Your task to perform on an android device: Open the phone app and click the voicemail tab. Image 0: 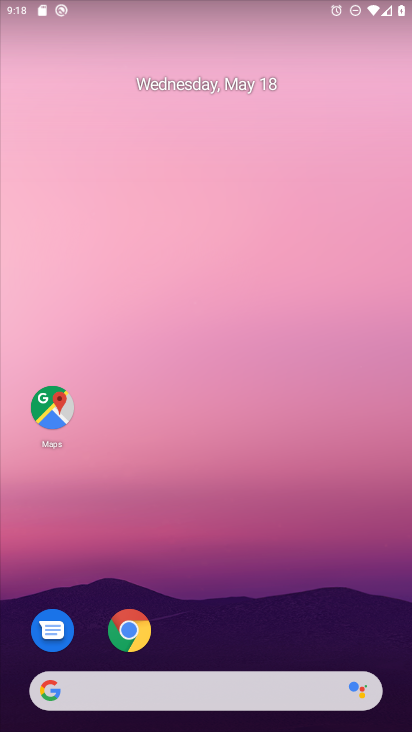
Step 0: drag from (187, 661) to (342, 23)
Your task to perform on an android device: Open the phone app and click the voicemail tab. Image 1: 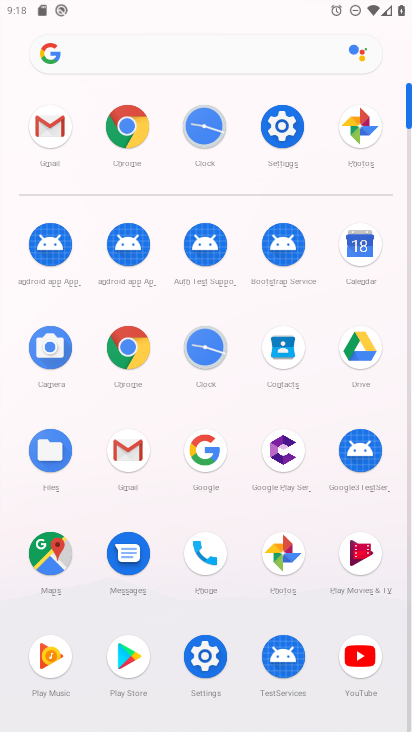
Step 1: click (198, 559)
Your task to perform on an android device: Open the phone app and click the voicemail tab. Image 2: 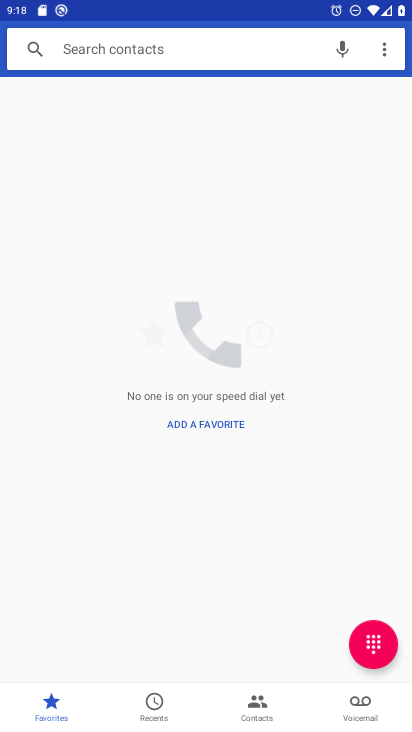
Step 2: click (369, 709)
Your task to perform on an android device: Open the phone app and click the voicemail tab. Image 3: 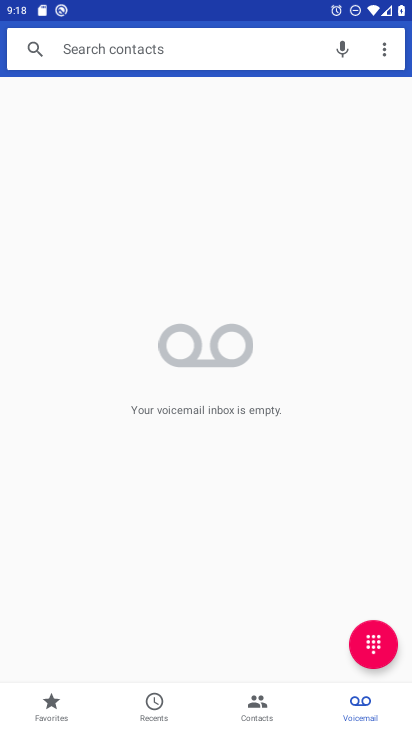
Step 3: task complete